Your task to perform on an android device: Open settings Image 0: 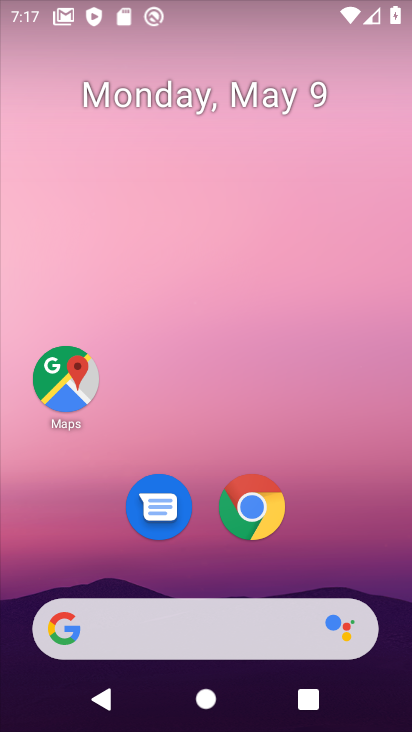
Step 0: drag from (244, 659) to (283, 134)
Your task to perform on an android device: Open settings Image 1: 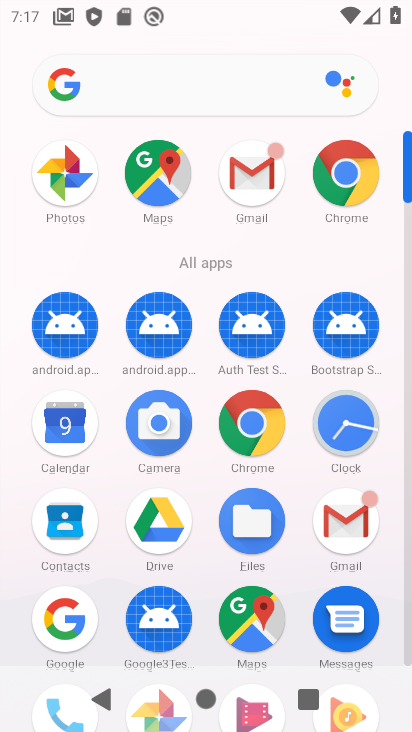
Step 1: drag from (303, 556) to (309, 388)
Your task to perform on an android device: Open settings Image 2: 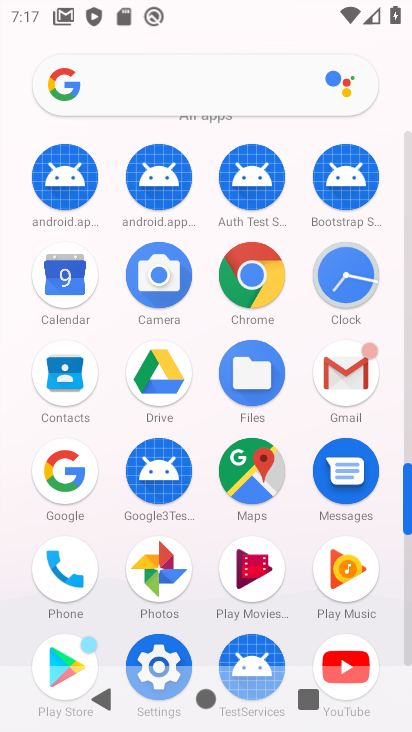
Step 2: click (164, 633)
Your task to perform on an android device: Open settings Image 3: 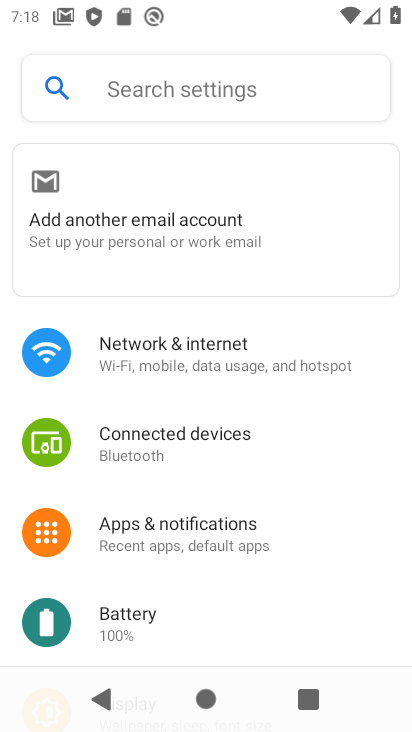
Step 3: drag from (252, 513) to (286, 395)
Your task to perform on an android device: Open settings Image 4: 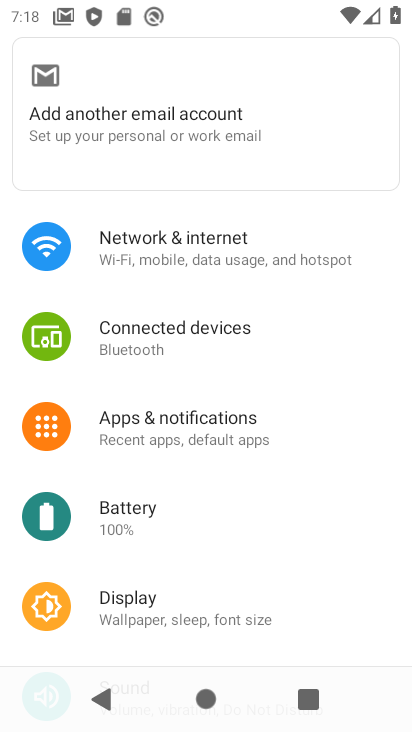
Step 4: drag from (198, 191) to (250, 321)
Your task to perform on an android device: Open settings Image 5: 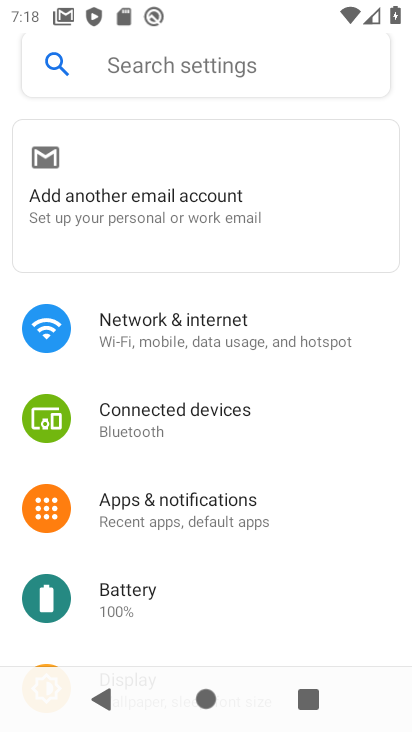
Step 5: click (149, 60)
Your task to perform on an android device: Open settings Image 6: 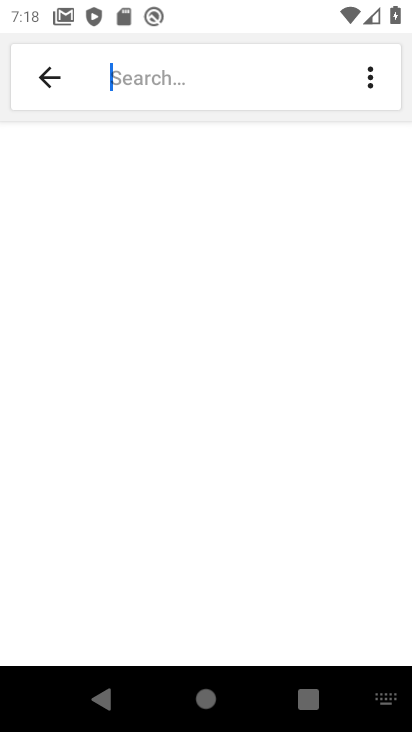
Step 6: click (388, 697)
Your task to perform on an android device: Open settings Image 7: 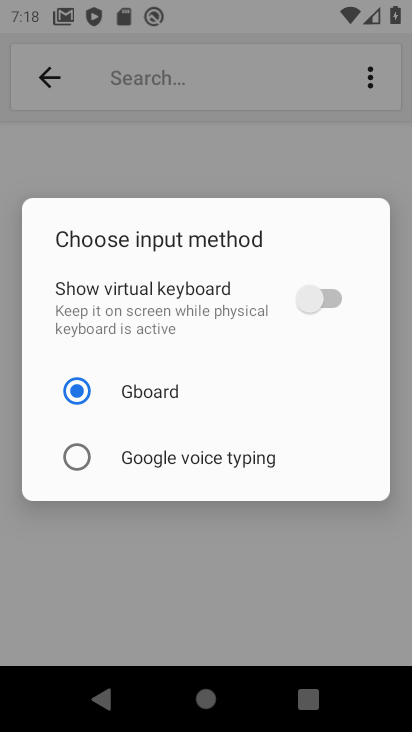
Step 7: drag from (395, 690) to (411, 631)
Your task to perform on an android device: Open settings Image 8: 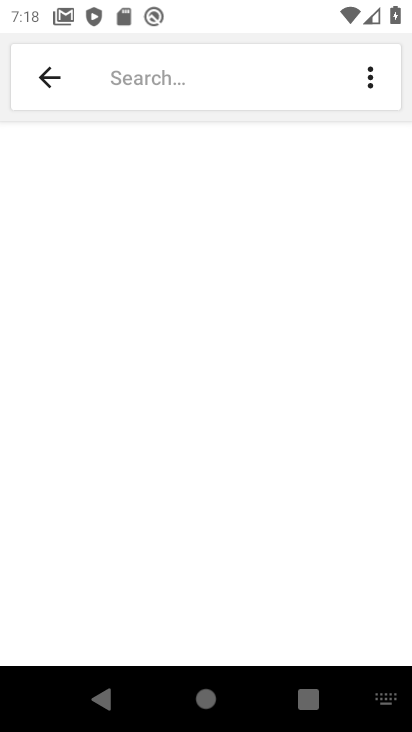
Step 8: click (319, 310)
Your task to perform on an android device: Open settings Image 9: 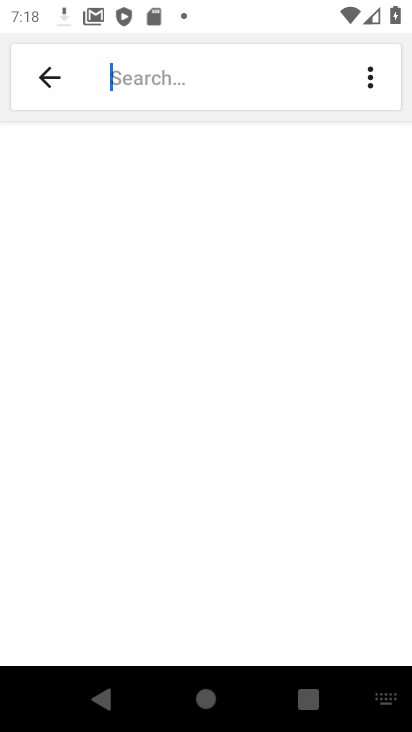
Step 9: click (396, 699)
Your task to perform on an android device: Open settings Image 10: 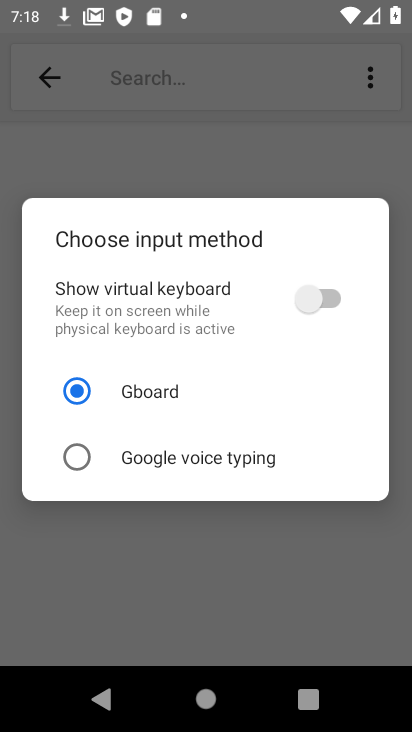
Step 10: click (308, 302)
Your task to perform on an android device: Open settings Image 11: 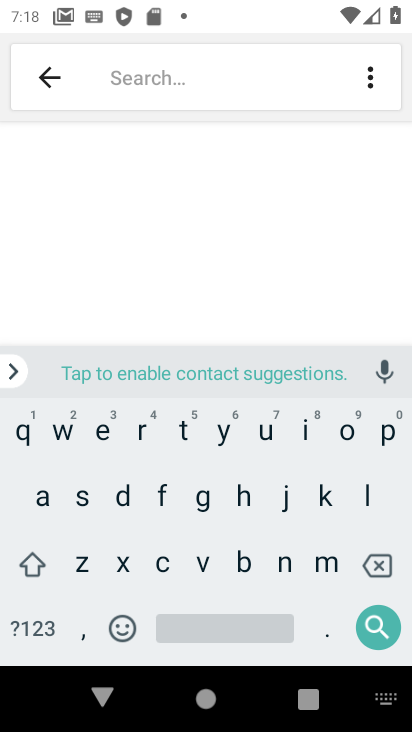
Step 11: click (27, 72)
Your task to perform on an android device: Open settings Image 12: 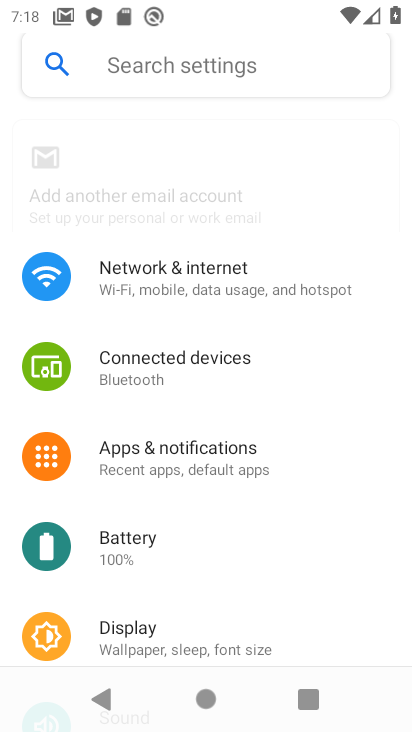
Step 12: task complete